Your task to perform on an android device: What's on my calendar tomorrow? Image 0: 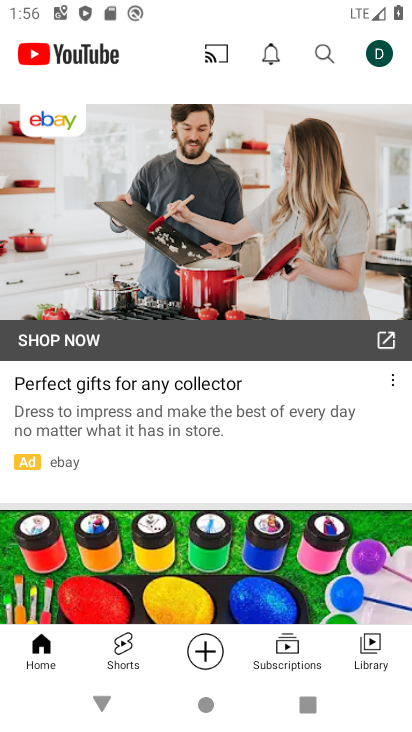
Step 0: drag from (175, 570) to (243, 181)
Your task to perform on an android device: What's on my calendar tomorrow? Image 1: 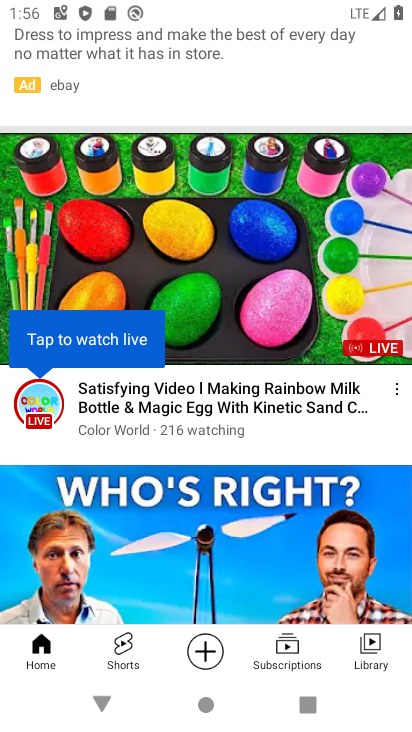
Step 1: drag from (196, 572) to (273, 177)
Your task to perform on an android device: What's on my calendar tomorrow? Image 2: 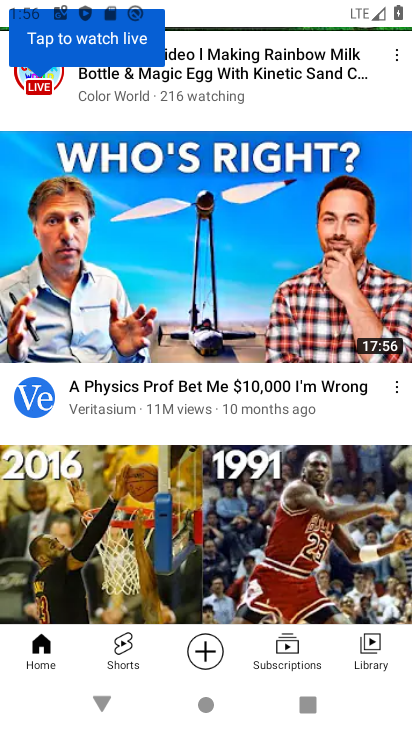
Step 2: drag from (227, 535) to (286, 212)
Your task to perform on an android device: What's on my calendar tomorrow? Image 3: 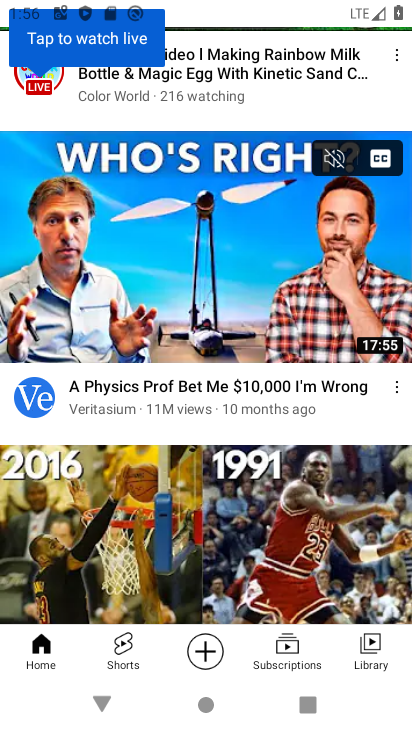
Step 3: drag from (301, 158) to (289, 727)
Your task to perform on an android device: What's on my calendar tomorrow? Image 4: 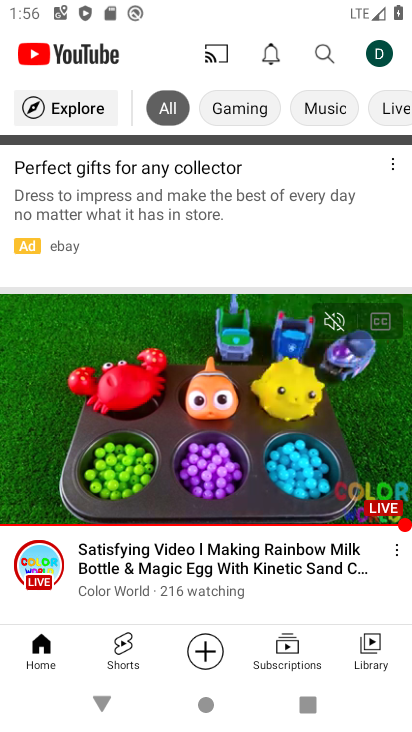
Step 4: press home button
Your task to perform on an android device: What's on my calendar tomorrow? Image 5: 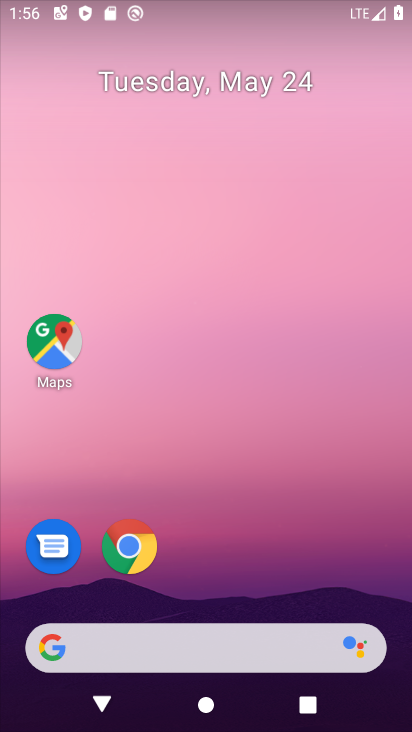
Step 5: drag from (177, 585) to (345, 14)
Your task to perform on an android device: What's on my calendar tomorrow? Image 6: 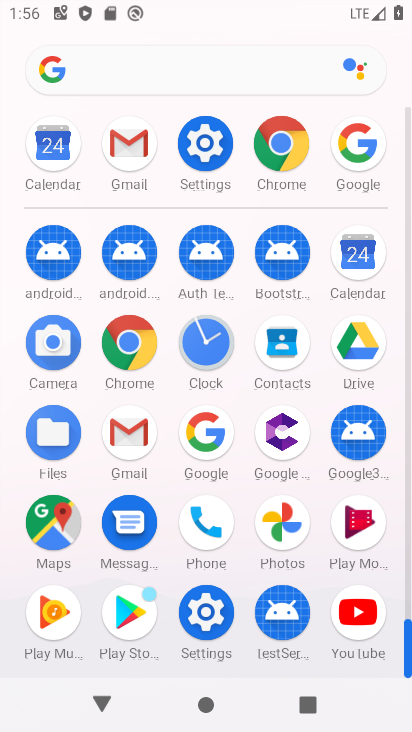
Step 6: click (367, 288)
Your task to perform on an android device: What's on my calendar tomorrow? Image 7: 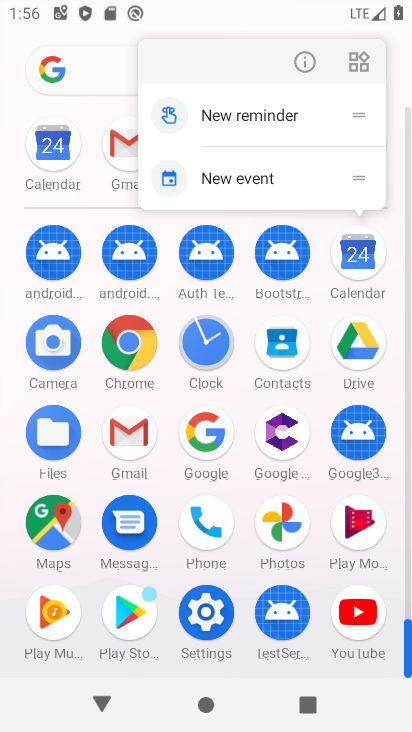
Step 7: click (307, 48)
Your task to perform on an android device: What's on my calendar tomorrow? Image 8: 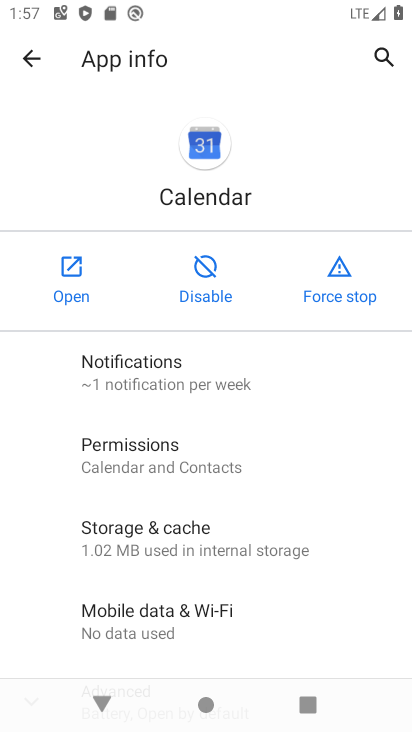
Step 8: click (70, 298)
Your task to perform on an android device: What's on my calendar tomorrow? Image 9: 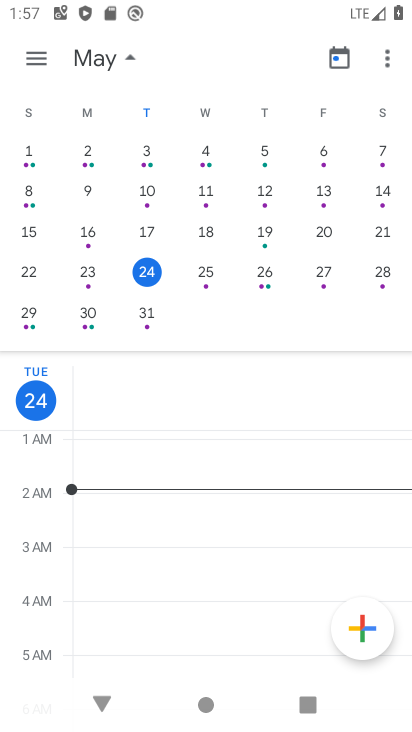
Step 9: click (203, 264)
Your task to perform on an android device: What's on my calendar tomorrow? Image 10: 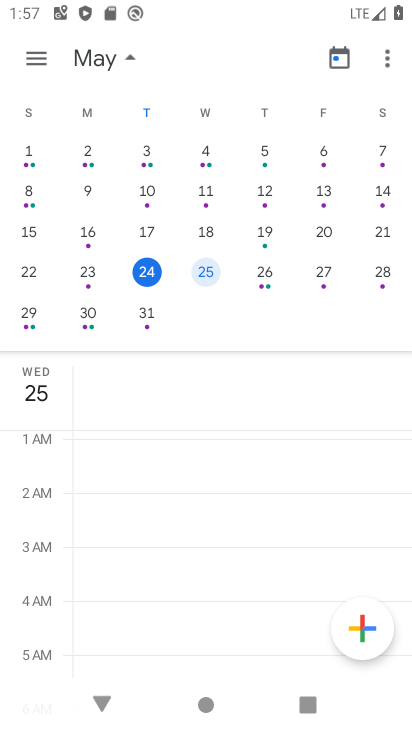
Step 10: task complete